Your task to perform on an android device: Open wifi settings Image 0: 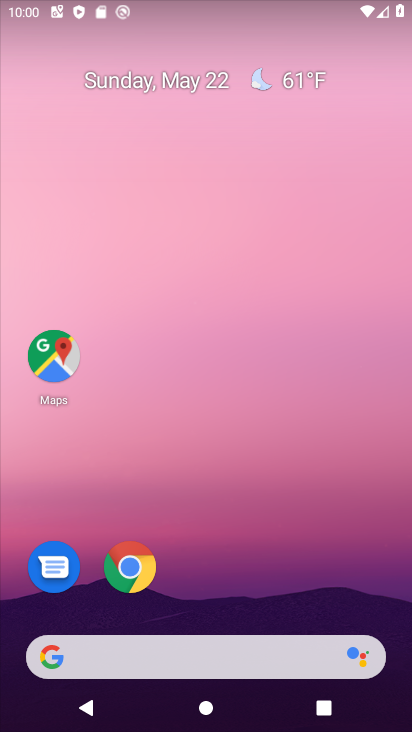
Step 0: drag from (236, 620) to (276, 72)
Your task to perform on an android device: Open wifi settings Image 1: 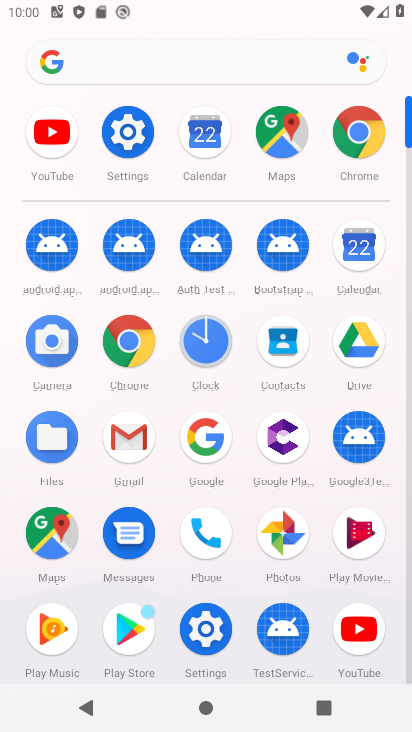
Step 1: click (201, 632)
Your task to perform on an android device: Open wifi settings Image 2: 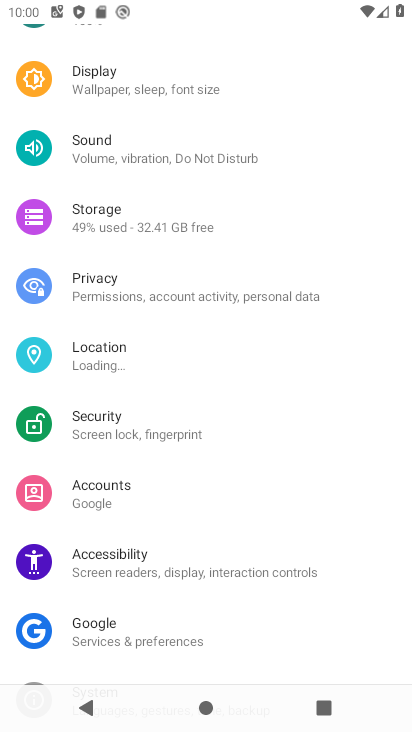
Step 2: drag from (146, 181) to (161, 715)
Your task to perform on an android device: Open wifi settings Image 3: 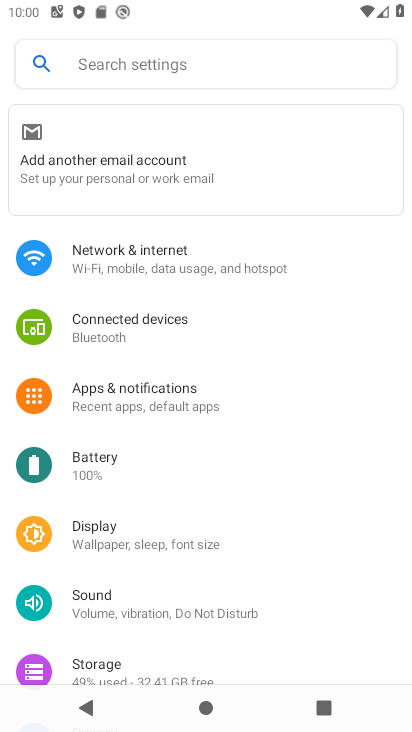
Step 3: click (161, 254)
Your task to perform on an android device: Open wifi settings Image 4: 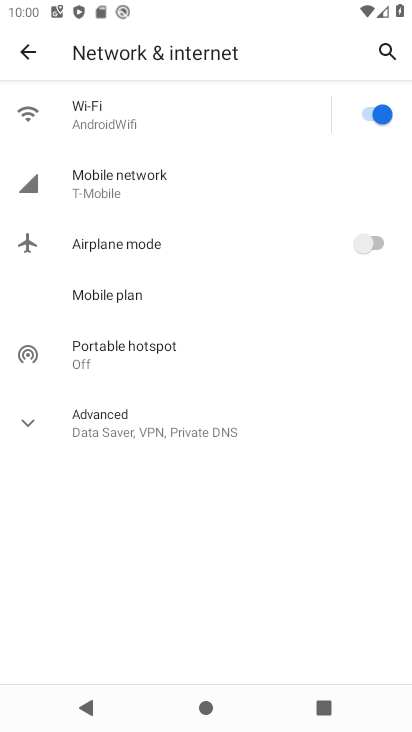
Step 4: drag from (140, 179) to (133, 552)
Your task to perform on an android device: Open wifi settings Image 5: 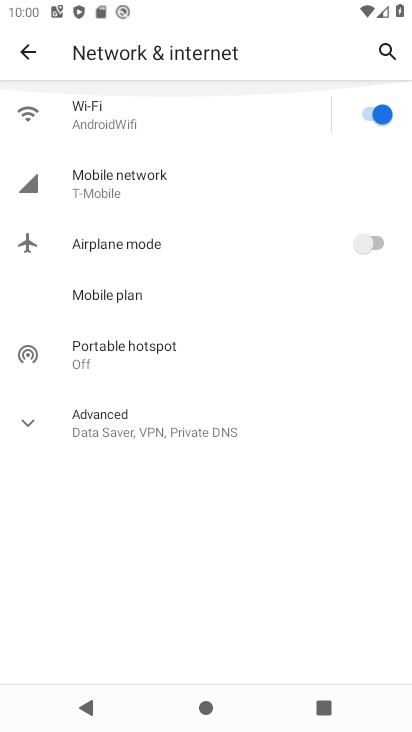
Step 5: click (154, 93)
Your task to perform on an android device: Open wifi settings Image 6: 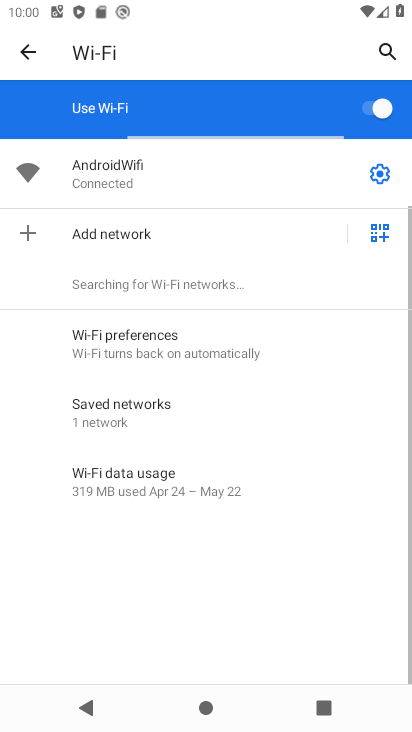
Step 6: task complete